Your task to perform on an android device: turn on notifications settings in the gmail app Image 0: 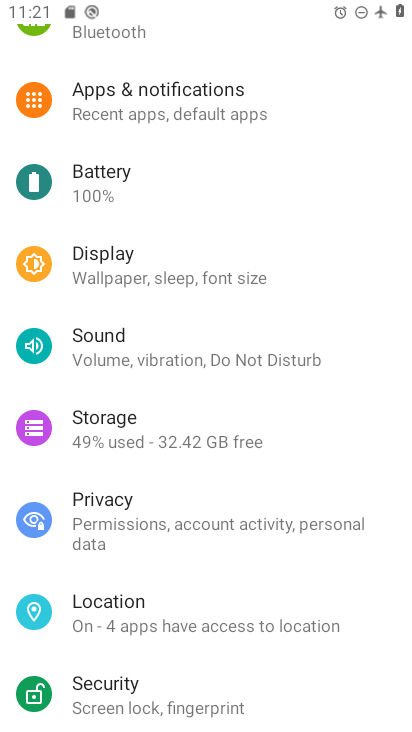
Step 0: press home button
Your task to perform on an android device: turn on notifications settings in the gmail app Image 1: 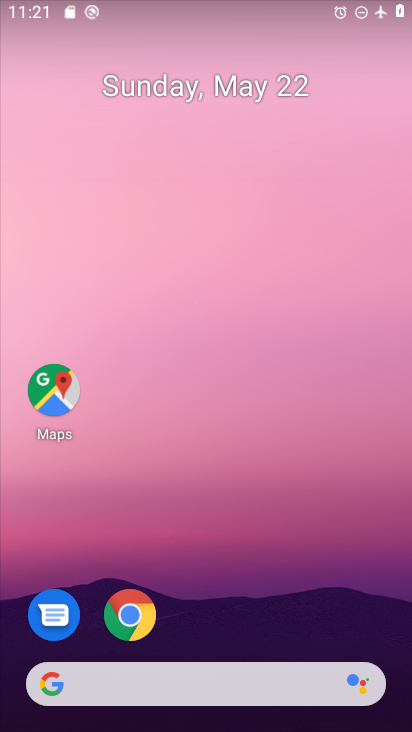
Step 1: drag from (265, 611) to (242, 106)
Your task to perform on an android device: turn on notifications settings in the gmail app Image 2: 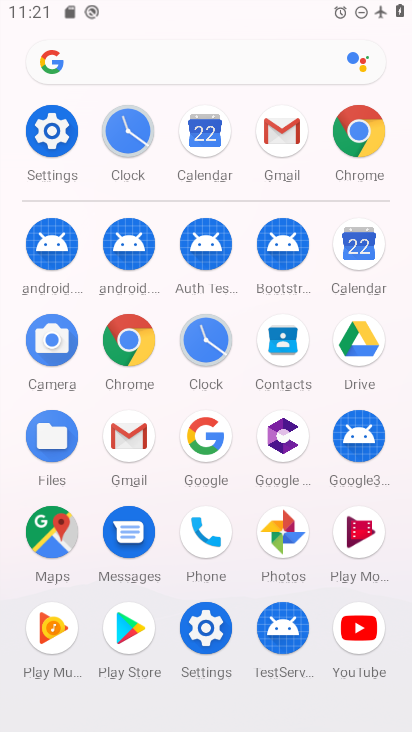
Step 2: click (280, 130)
Your task to perform on an android device: turn on notifications settings in the gmail app Image 3: 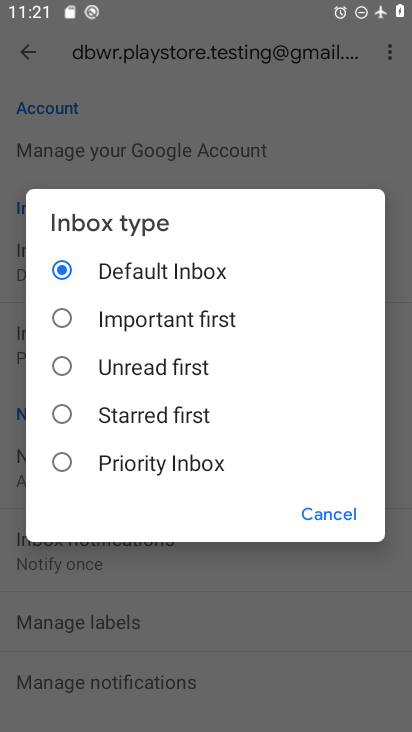
Step 3: click (337, 517)
Your task to perform on an android device: turn on notifications settings in the gmail app Image 4: 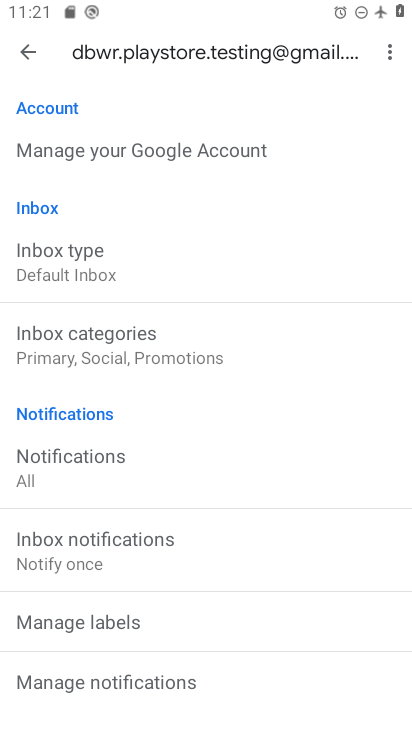
Step 4: click (162, 684)
Your task to perform on an android device: turn on notifications settings in the gmail app Image 5: 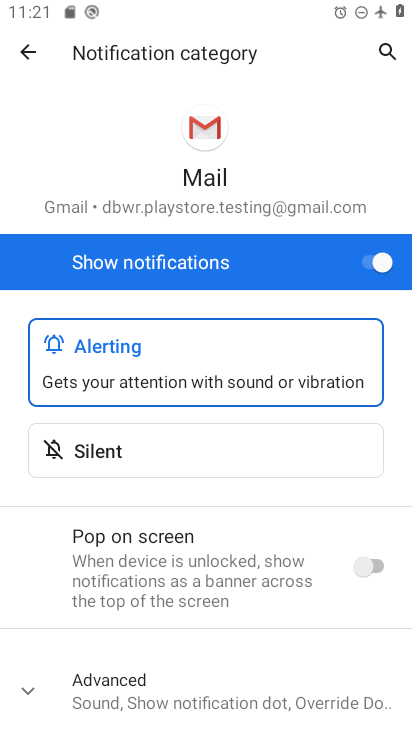
Step 5: task complete